Your task to perform on an android device: Open Chrome and go to settings Image 0: 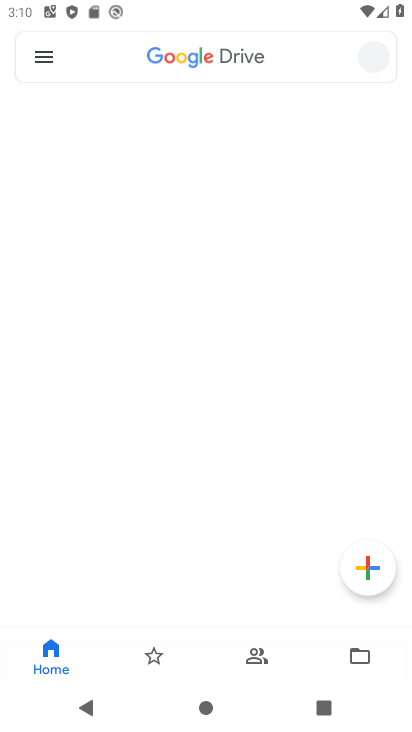
Step 0: drag from (192, 580) to (205, 258)
Your task to perform on an android device: Open Chrome and go to settings Image 1: 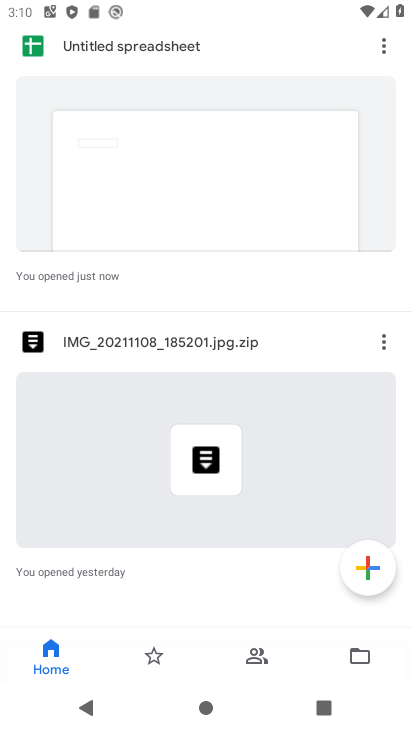
Step 1: click (205, 703)
Your task to perform on an android device: Open Chrome and go to settings Image 2: 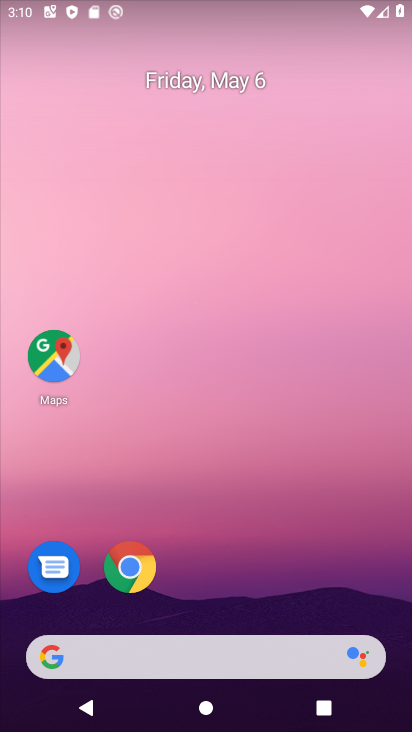
Step 2: click (132, 566)
Your task to perform on an android device: Open Chrome and go to settings Image 3: 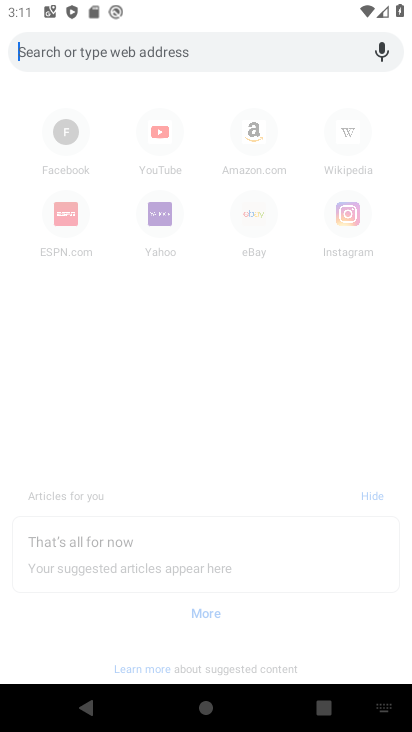
Step 3: click (40, 118)
Your task to perform on an android device: Open Chrome and go to settings Image 4: 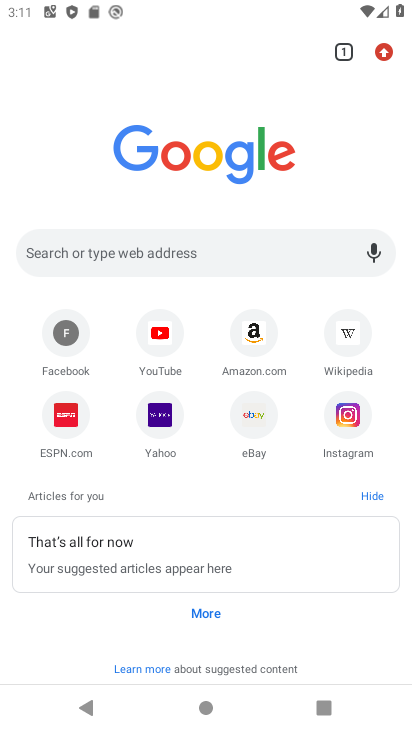
Step 4: click (385, 54)
Your task to perform on an android device: Open Chrome and go to settings Image 5: 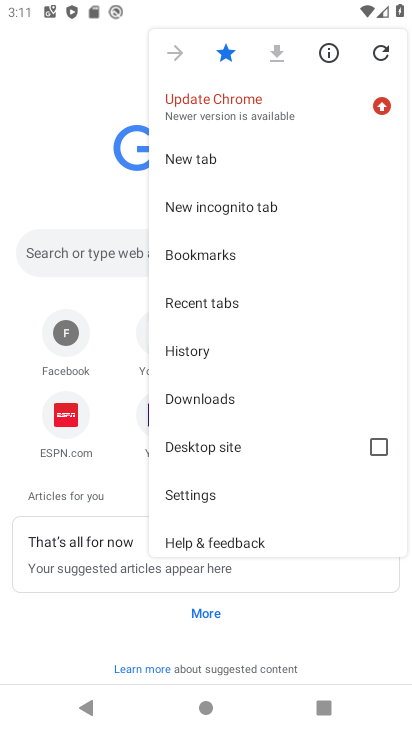
Step 5: click (212, 490)
Your task to perform on an android device: Open Chrome and go to settings Image 6: 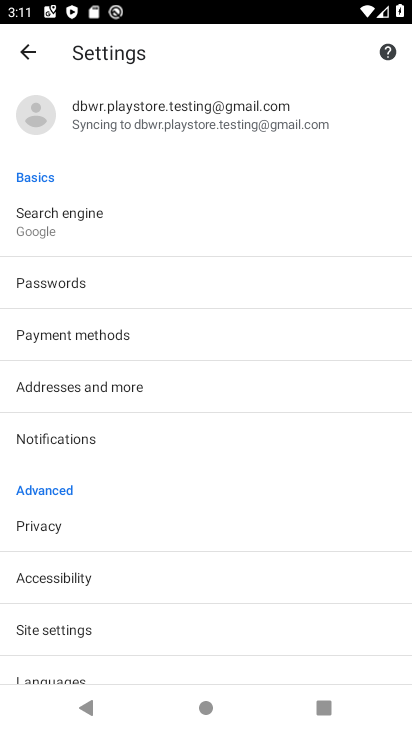
Step 6: task complete